Your task to perform on an android device: Go to Maps Image 0: 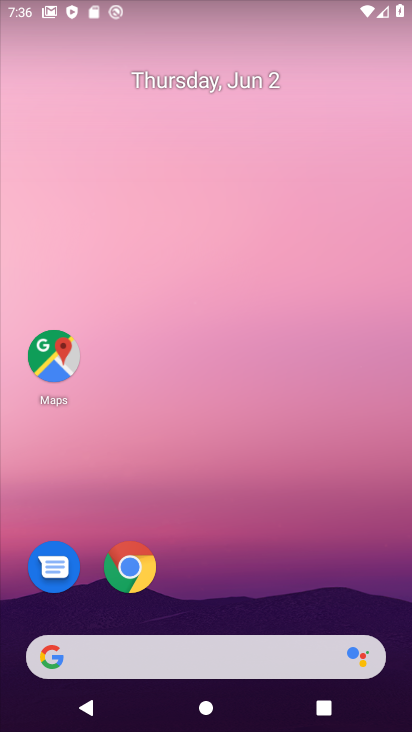
Step 0: click (53, 356)
Your task to perform on an android device: Go to Maps Image 1: 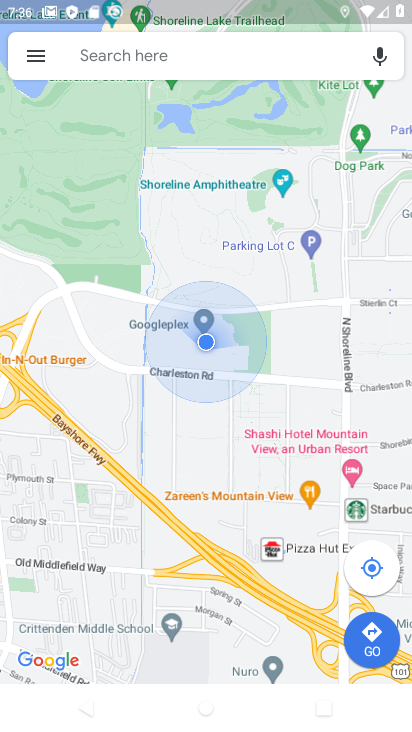
Step 1: task complete